Your task to perform on an android device: Search for amazon basics triple a on bestbuy.com, select the first entry, and add it to the cart. Image 0: 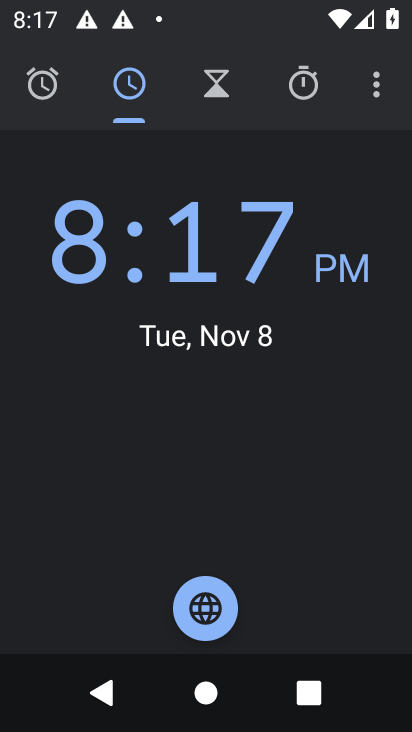
Step 0: press home button
Your task to perform on an android device: Search for amazon basics triple a on bestbuy.com, select the first entry, and add it to the cart. Image 1: 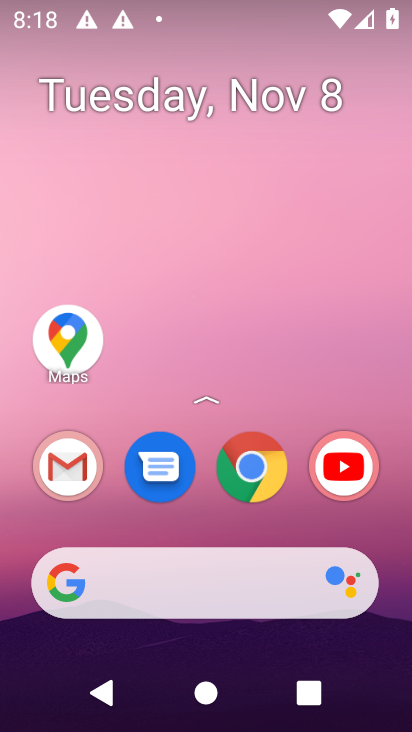
Step 1: click (239, 595)
Your task to perform on an android device: Search for amazon basics triple a on bestbuy.com, select the first entry, and add it to the cart. Image 2: 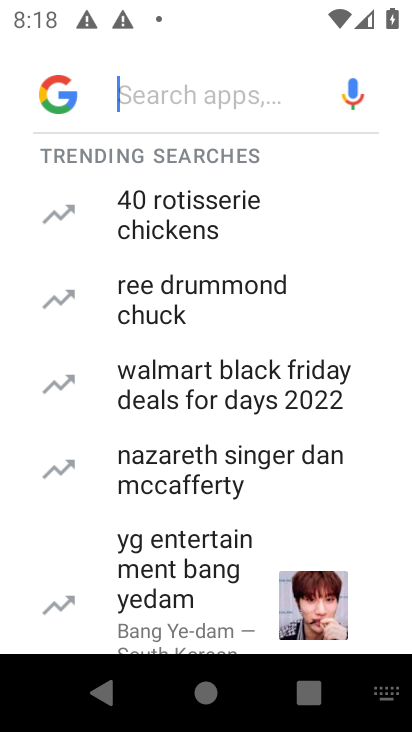
Step 2: type "bestbuy"
Your task to perform on an android device: Search for amazon basics triple a on bestbuy.com, select the first entry, and add it to the cart. Image 3: 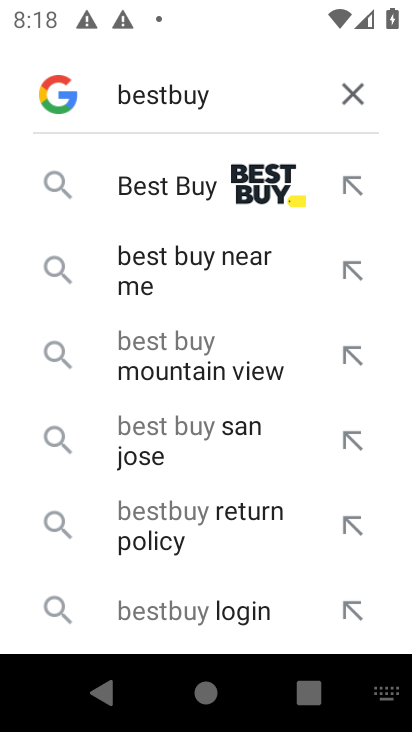
Step 3: click (176, 204)
Your task to perform on an android device: Search for amazon basics triple a on bestbuy.com, select the first entry, and add it to the cart. Image 4: 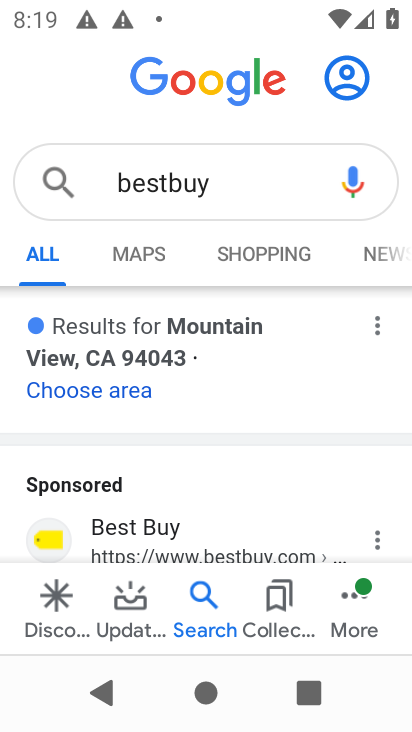
Step 4: click (123, 504)
Your task to perform on an android device: Search for amazon basics triple a on bestbuy.com, select the first entry, and add it to the cart. Image 5: 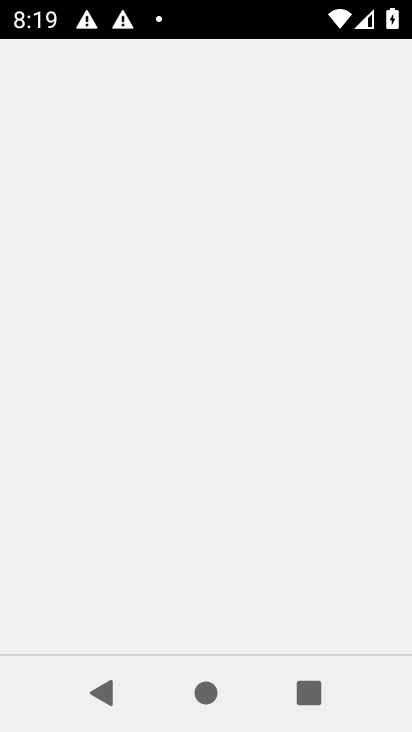
Step 5: task complete